Your task to perform on an android device: turn off wifi Image 0: 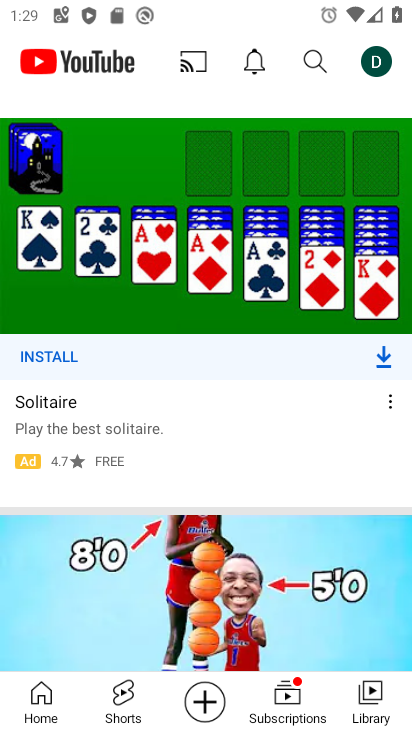
Step 0: press home button
Your task to perform on an android device: turn off wifi Image 1: 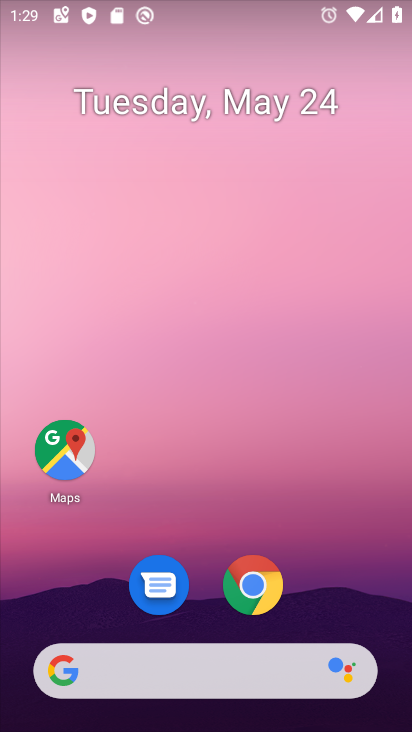
Step 1: drag from (231, 500) to (237, 54)
Your task to perform on an android device: turn off wifi Image 2: 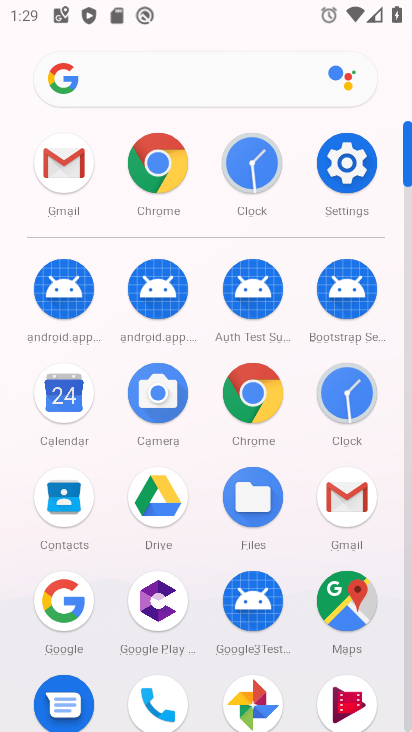
Step 2: click (350, 167)
Your task to perform on an android device: turn off wifi Image 3: 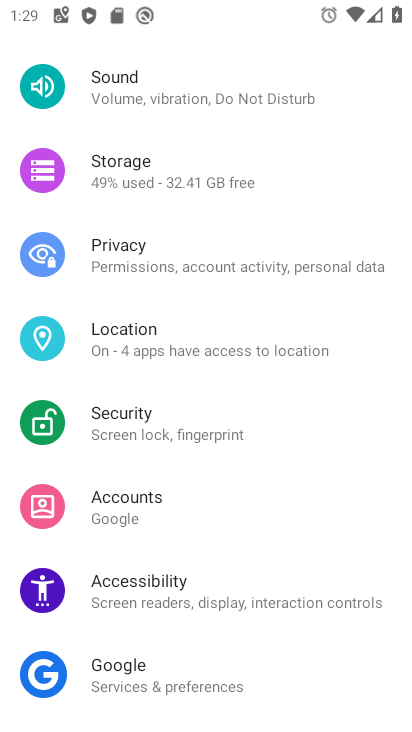
Step 3: drag from (287, 155) to (284, 589)
Your task to perform on an android device: turn off wifi Image 4: 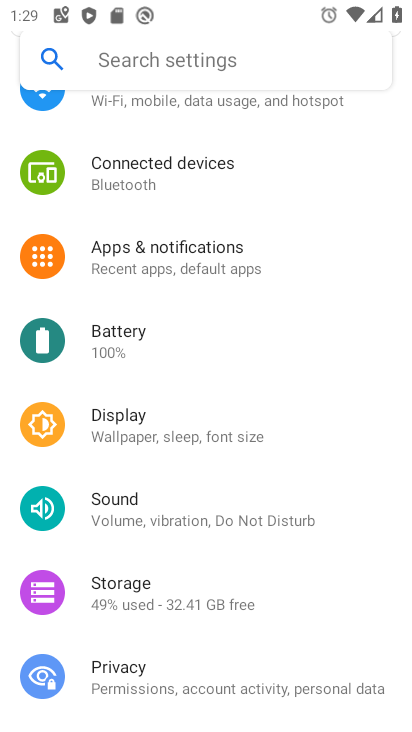
Step 4: drag from (219, 194) to (249, 482)
Your task to perform on an android device: turn off wifi Image 5: 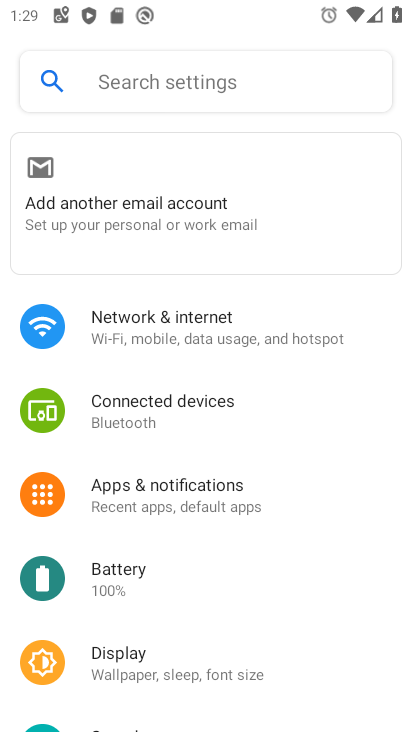
Step 5: click (204, 322)
Your task to perform on an android device: turn off wifi Image 6: 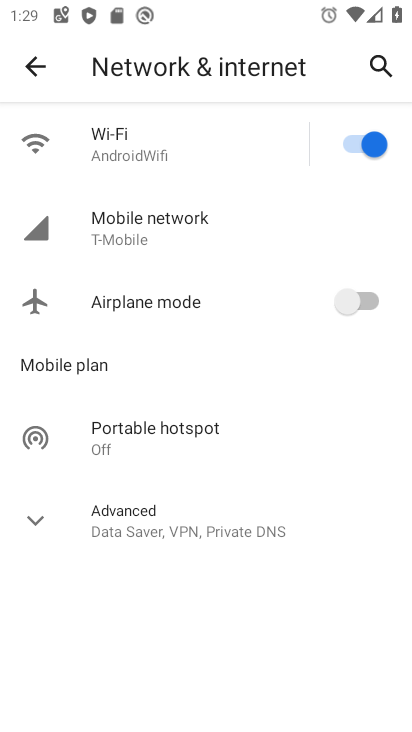
Step 6: click (367, 135)
Your task to perform on an android device: turn off wifi Image 7: 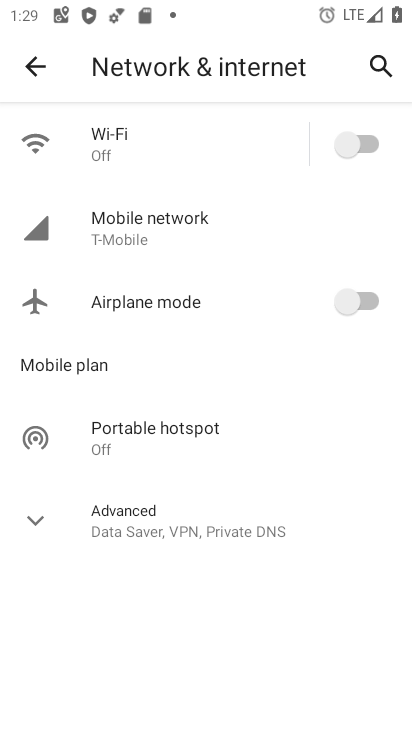
Step 7: task complete